Your task to perform on an android device: Open settings on Google Maps Image 0: 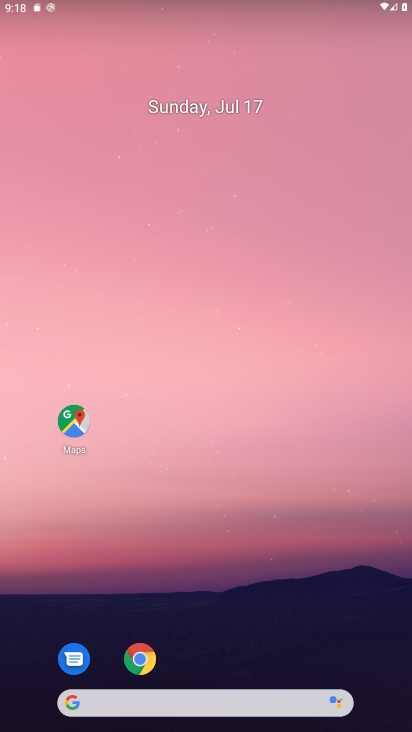
Step 0: drag from (169, 708) to (168, 123)
Your task to perform on an android device: Open settings on Google Maps Image 1: 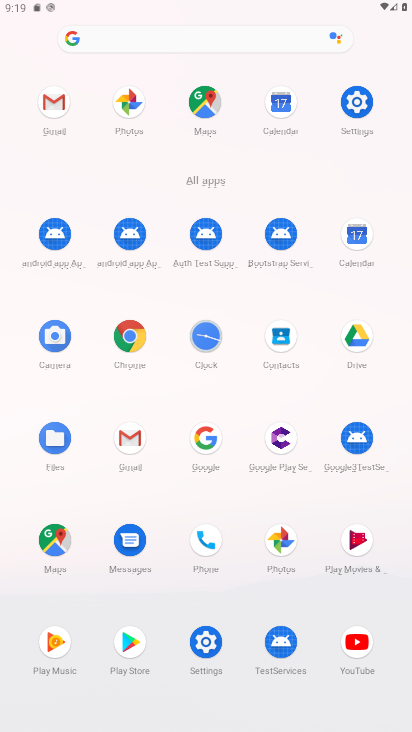
Step 1: click (223, 111)
Your task to perform on an android device: Open settings on Google Maps Image 2: 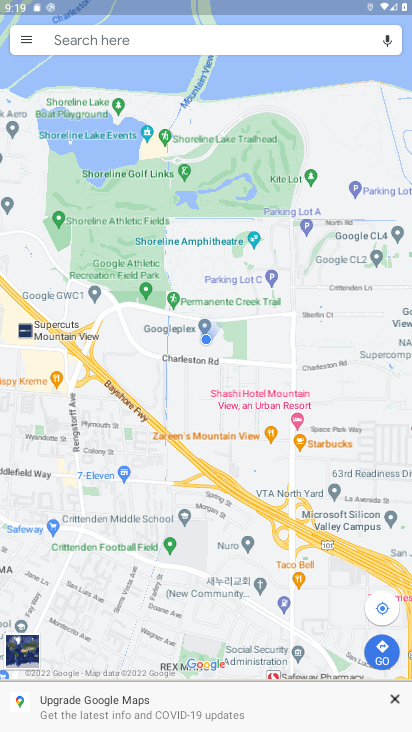
Step 2: click (18, 29)
Your task to perform on an android device: Open settings on Google Maps Image 3: 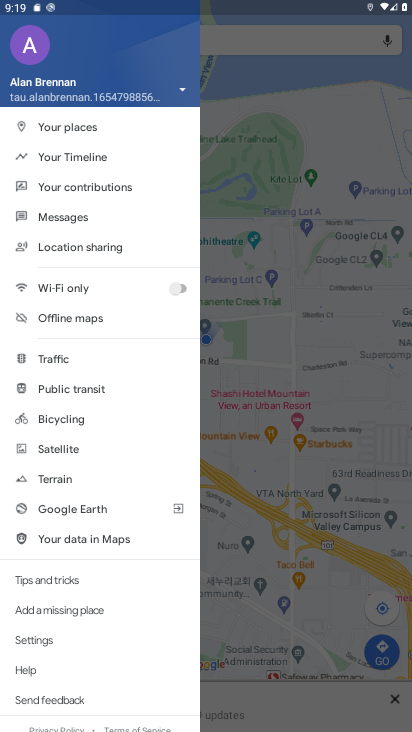
Step 3: click (42, 640)
Your task to perform on an android device: Open settings on Google Maps Image 4: 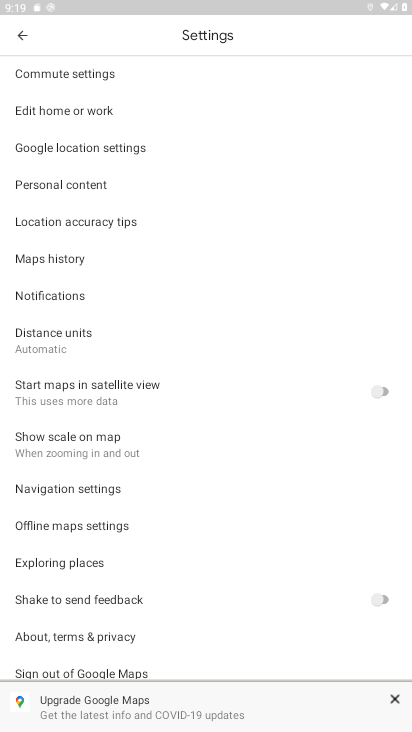
Step 4: task complete